Your task to perform on an android device: Go to CNN.com Image 0: 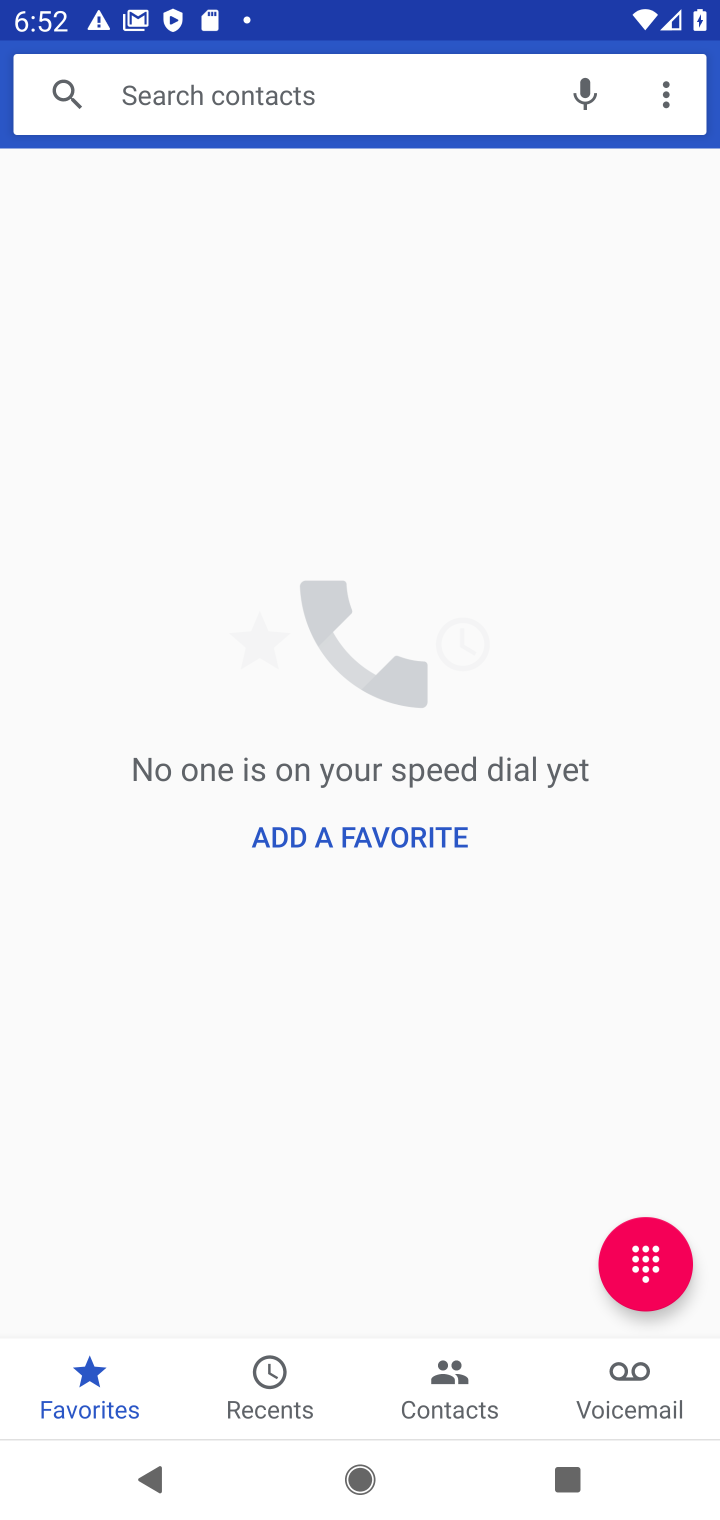
Step 0: press home button
Your task to perform on an android device: Go to CNN.com Image 1: 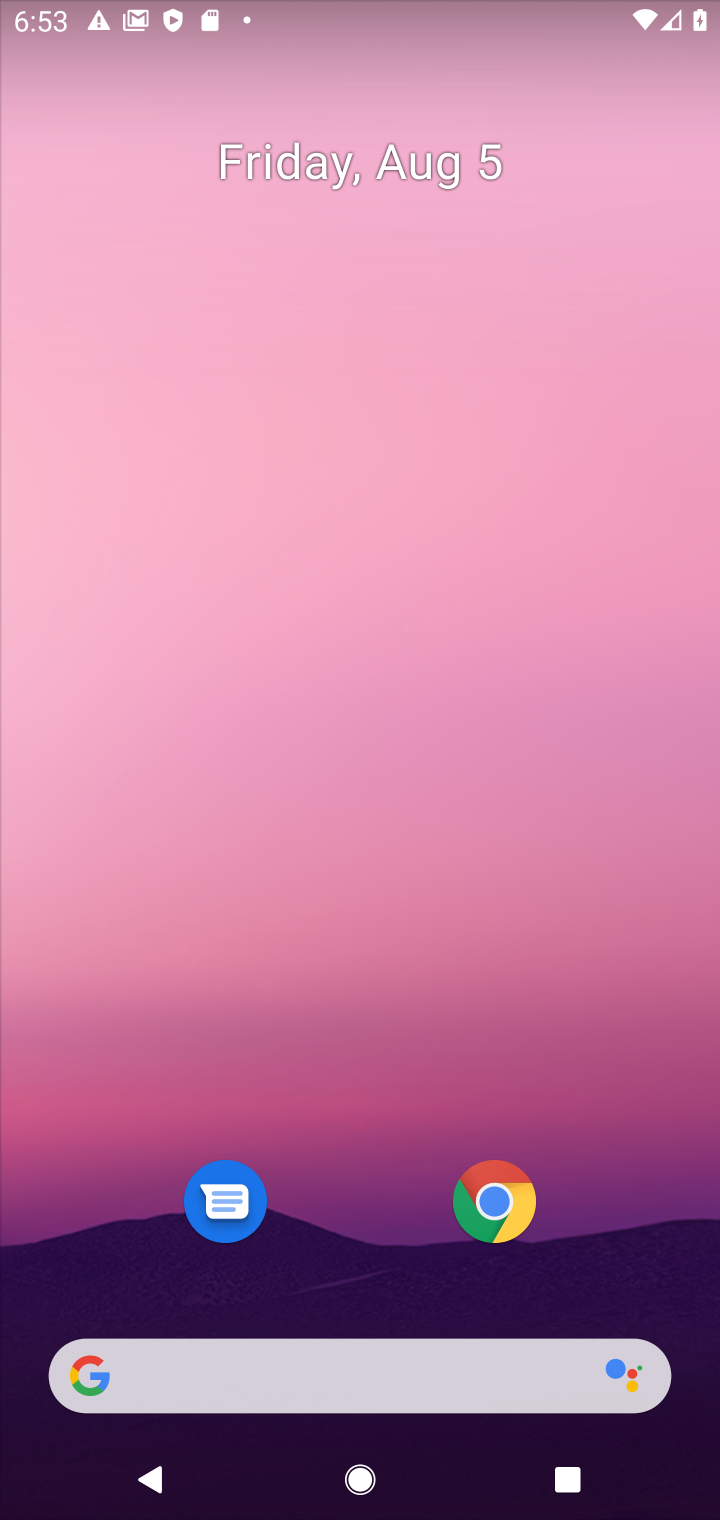
Step 1: drag from (509, 1388) to (369, 479)
Your task to perform on an android device: Go to CNN.com Image 2: 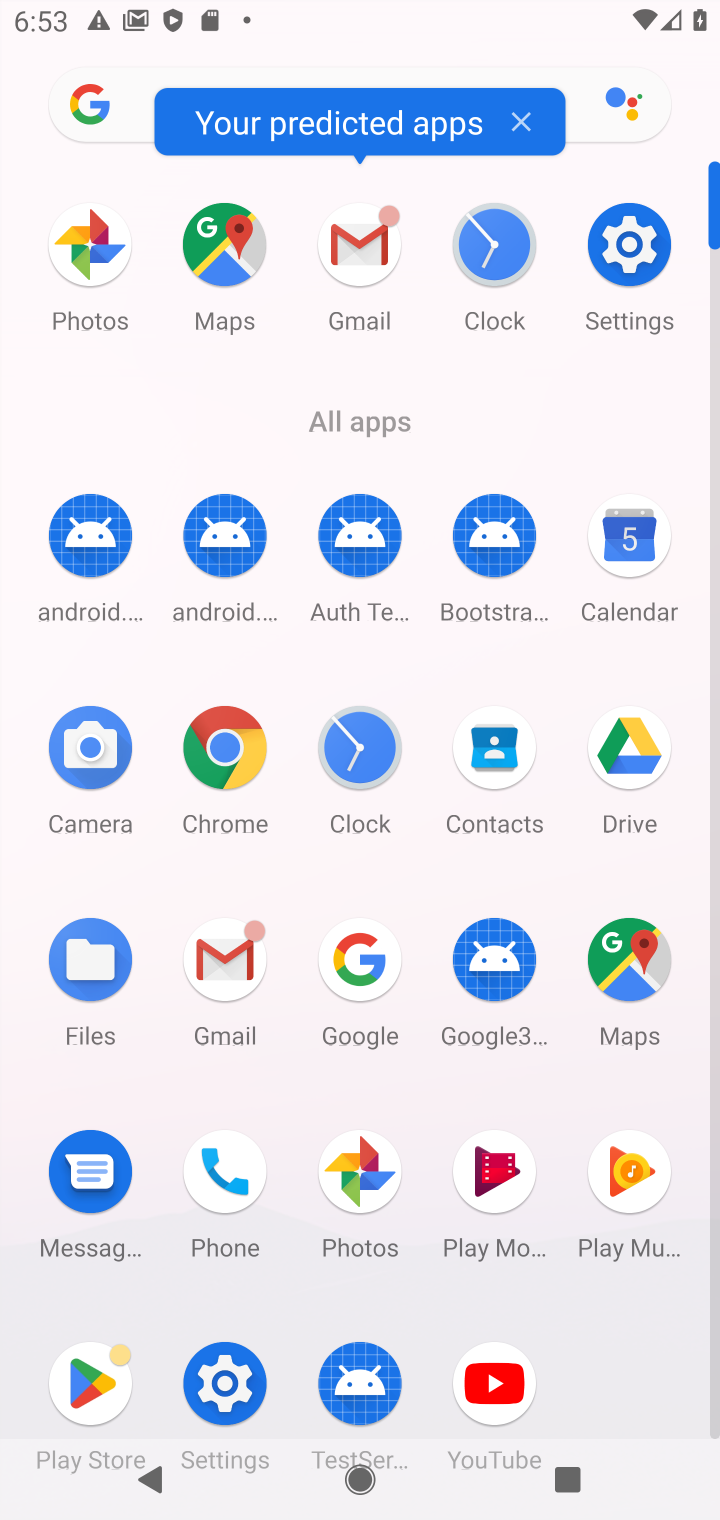
Step 2: click (233, 722)
Your task to perform on an android device: Go to CNN.com Image 3: 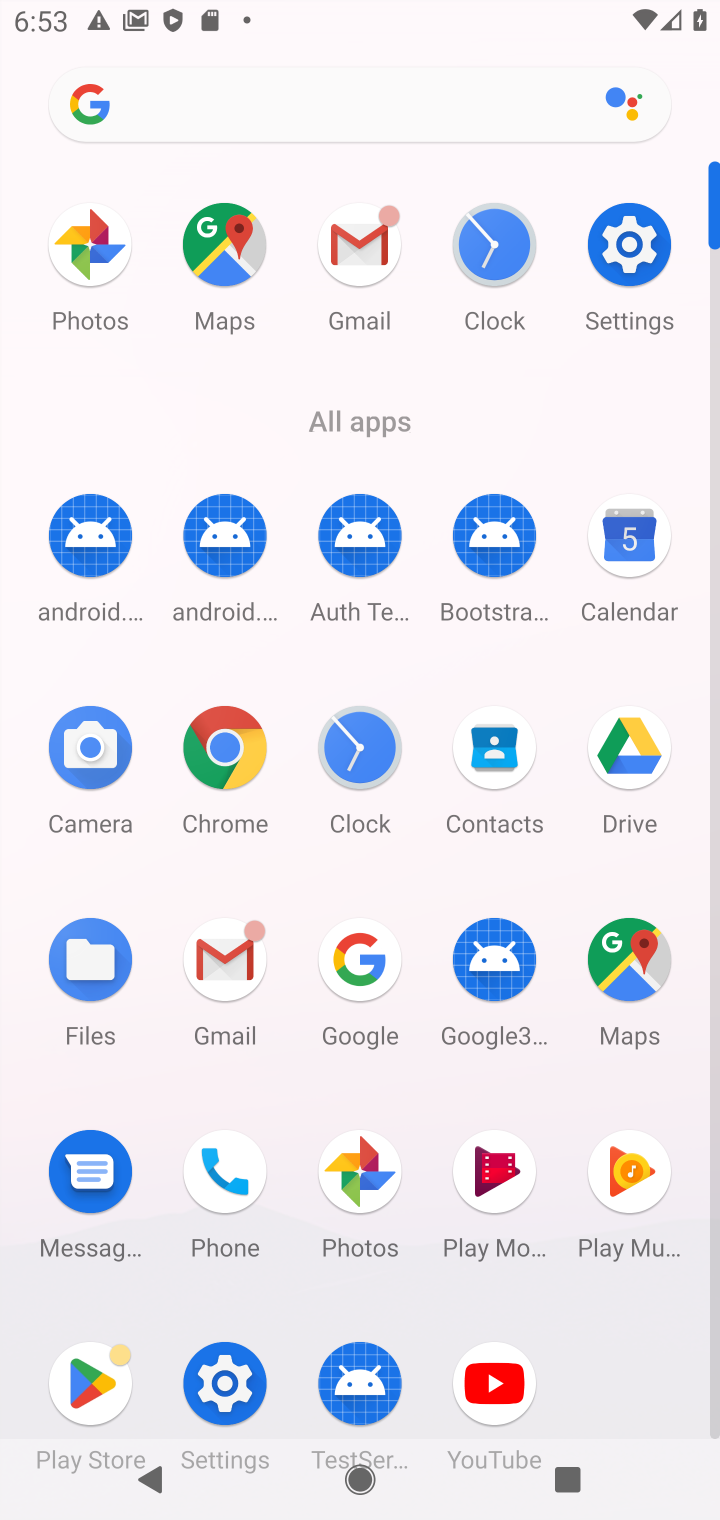
Step 3: click (230, 765)
Your task to perform on an android device: Go to CNN.com Image 4: 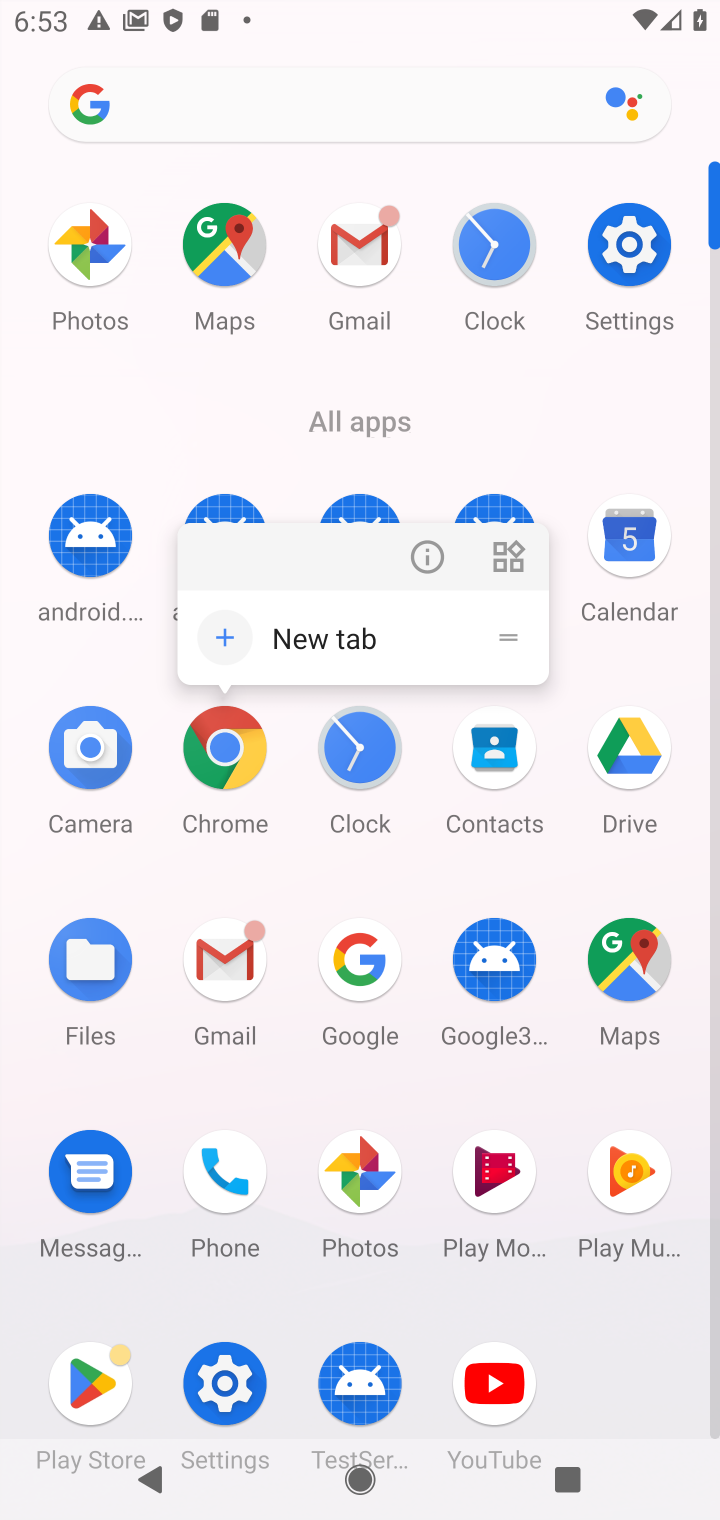
Step 4: click (236, 747)
Your task to perform on an android device: Go to CNN.com Image 5: 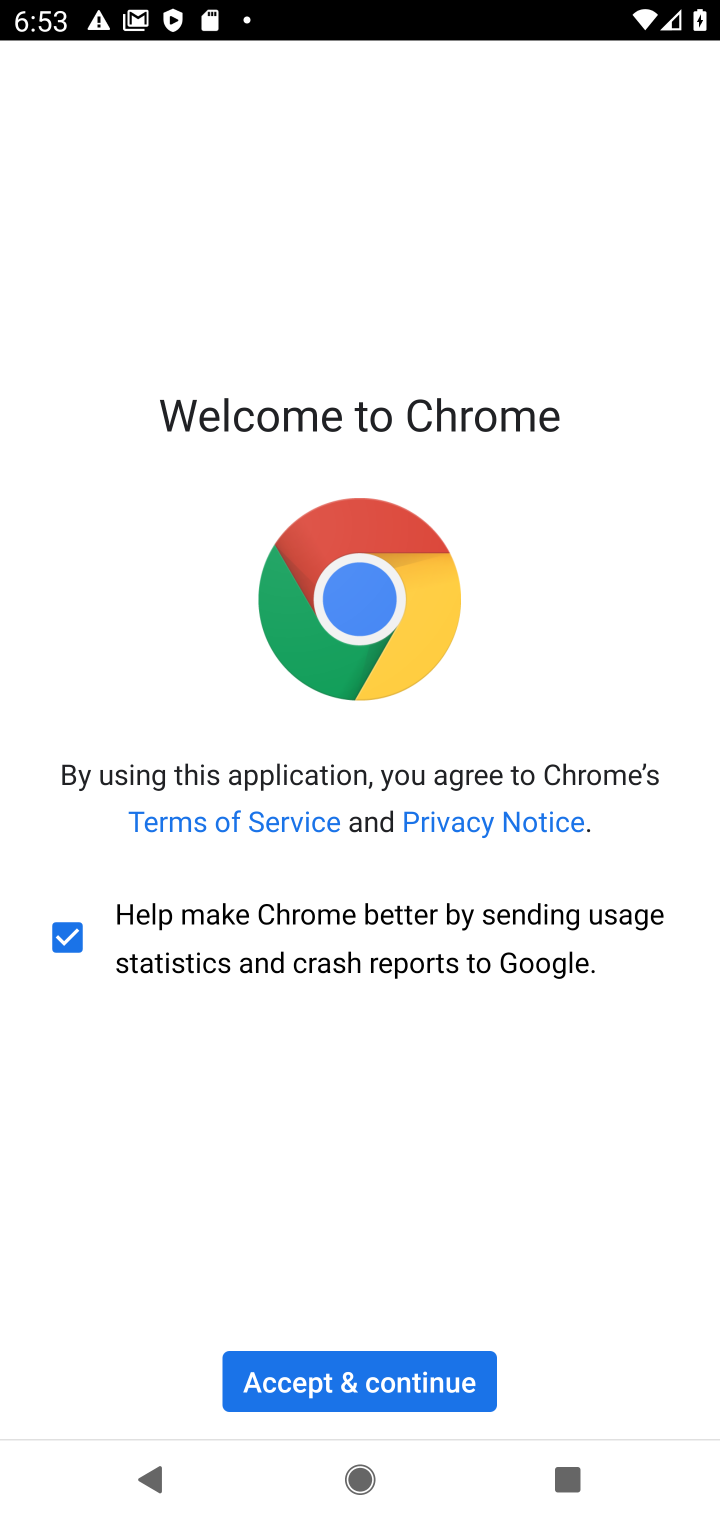
Step 5: click (340, 1378)
Your task to perform on an android device: Go to CNN.com Image 6: 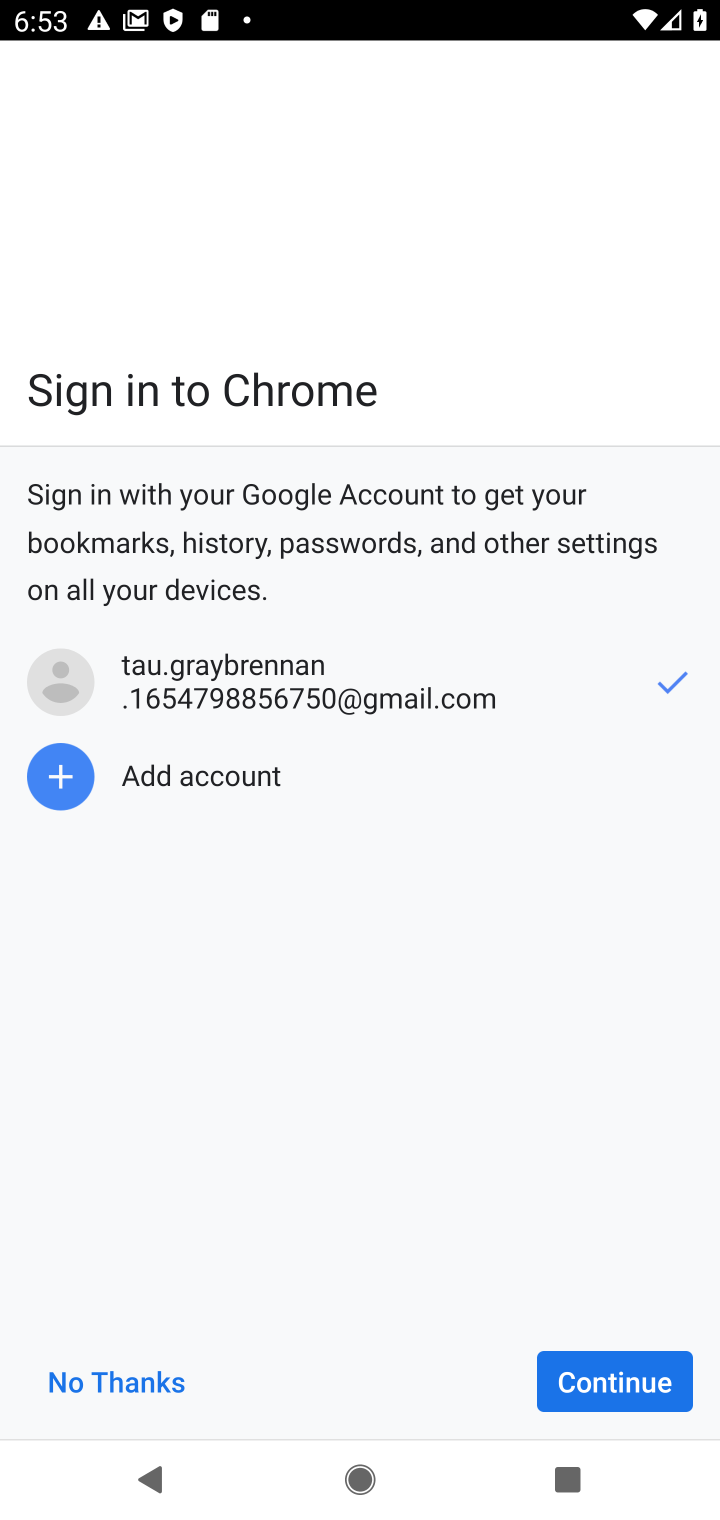
Step 6: click (600, 1371)
Your task to perform on an android device: Go to CNN.com Image 7: 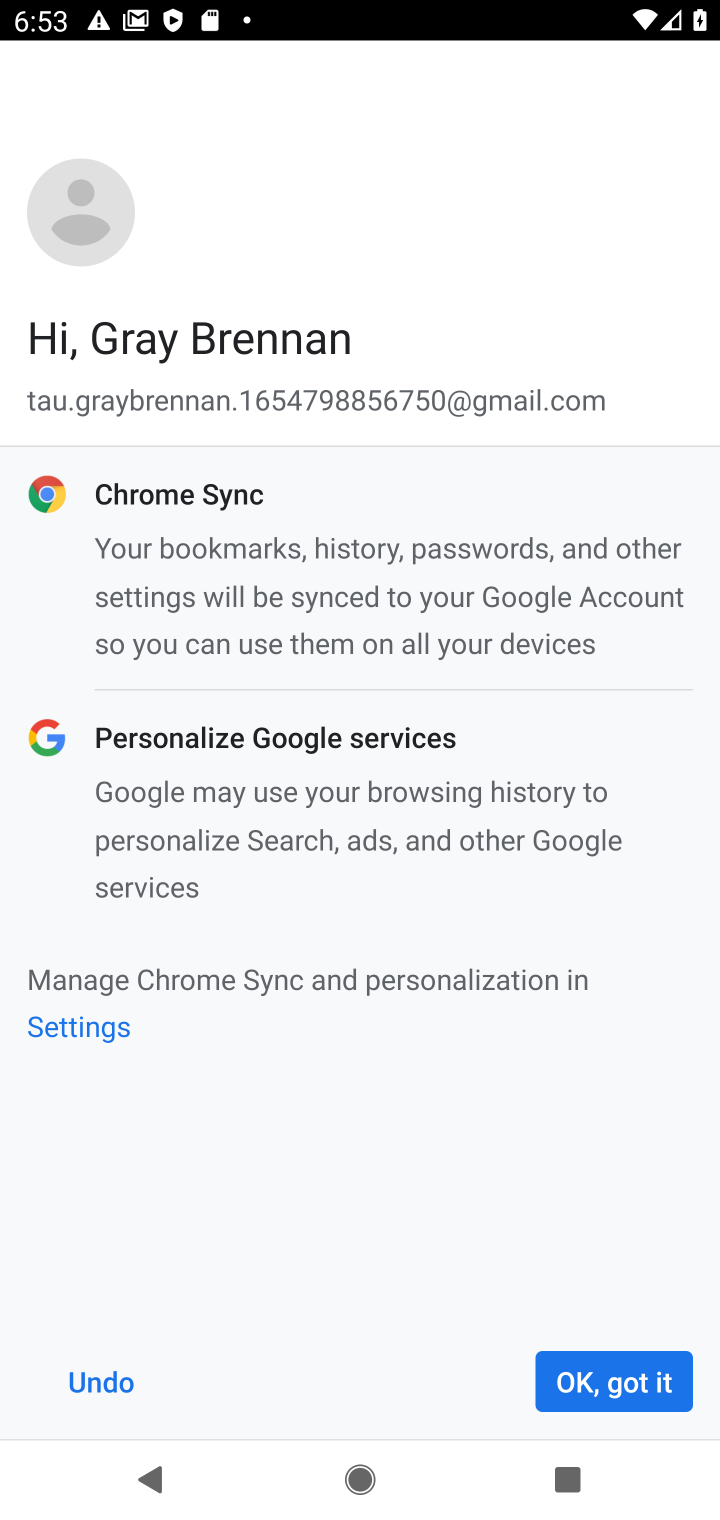
Step 7: click (600, 1371)
Your task to perform on an android device: Go to CNN.com Image 8: 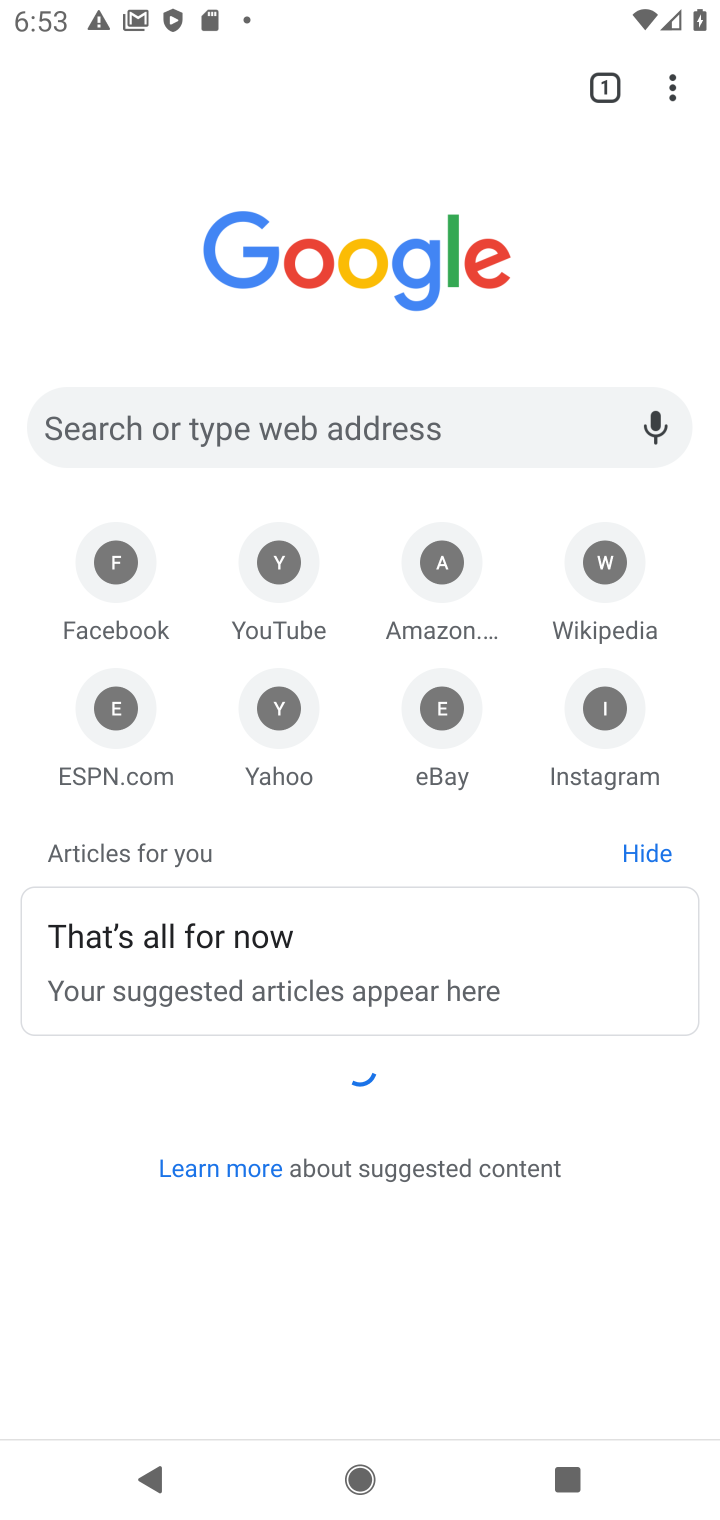
Step 8: click (248, 420)
Your task to perform on an android device: Go to CNN.com Image 9: 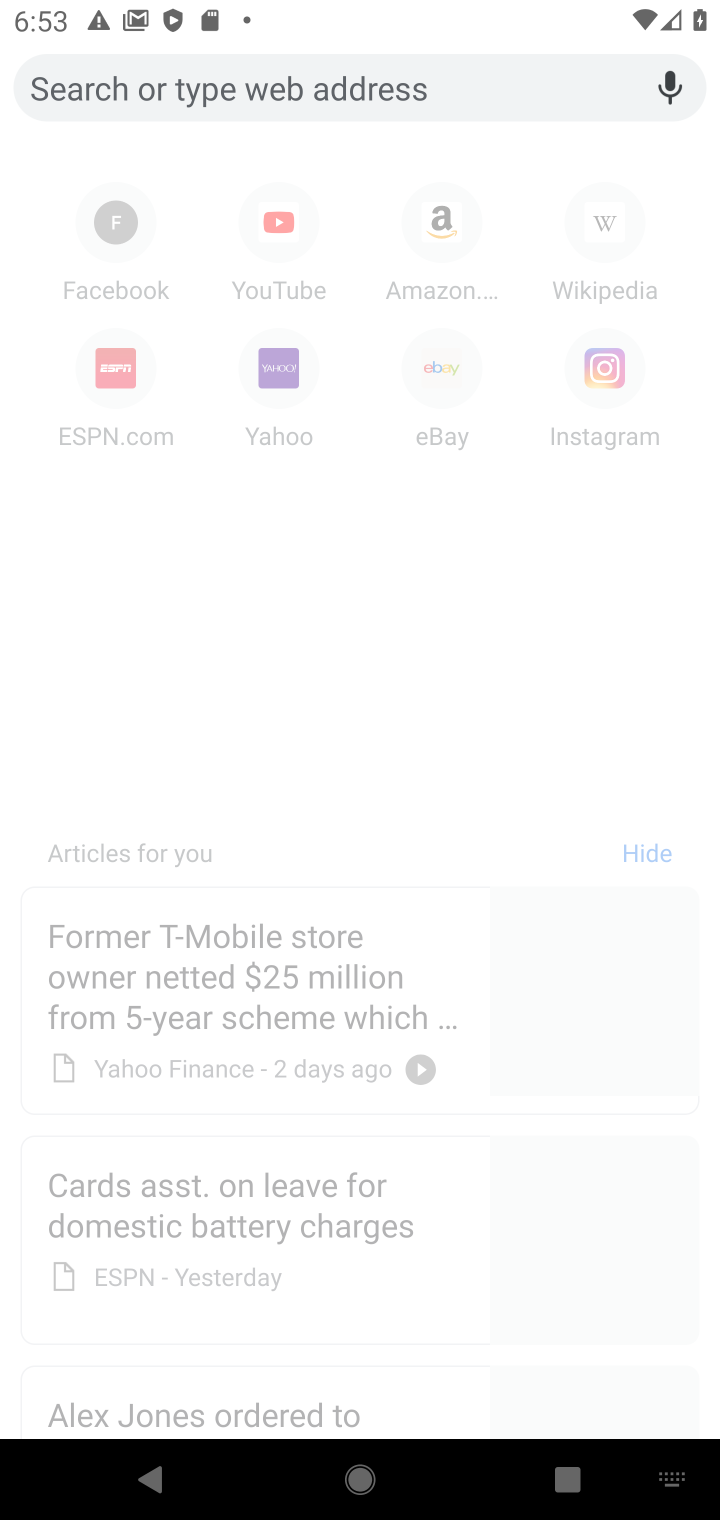
Step 9: click (663, 1505)
Your task to perform on an android device: Go to CNN.com Image 10: 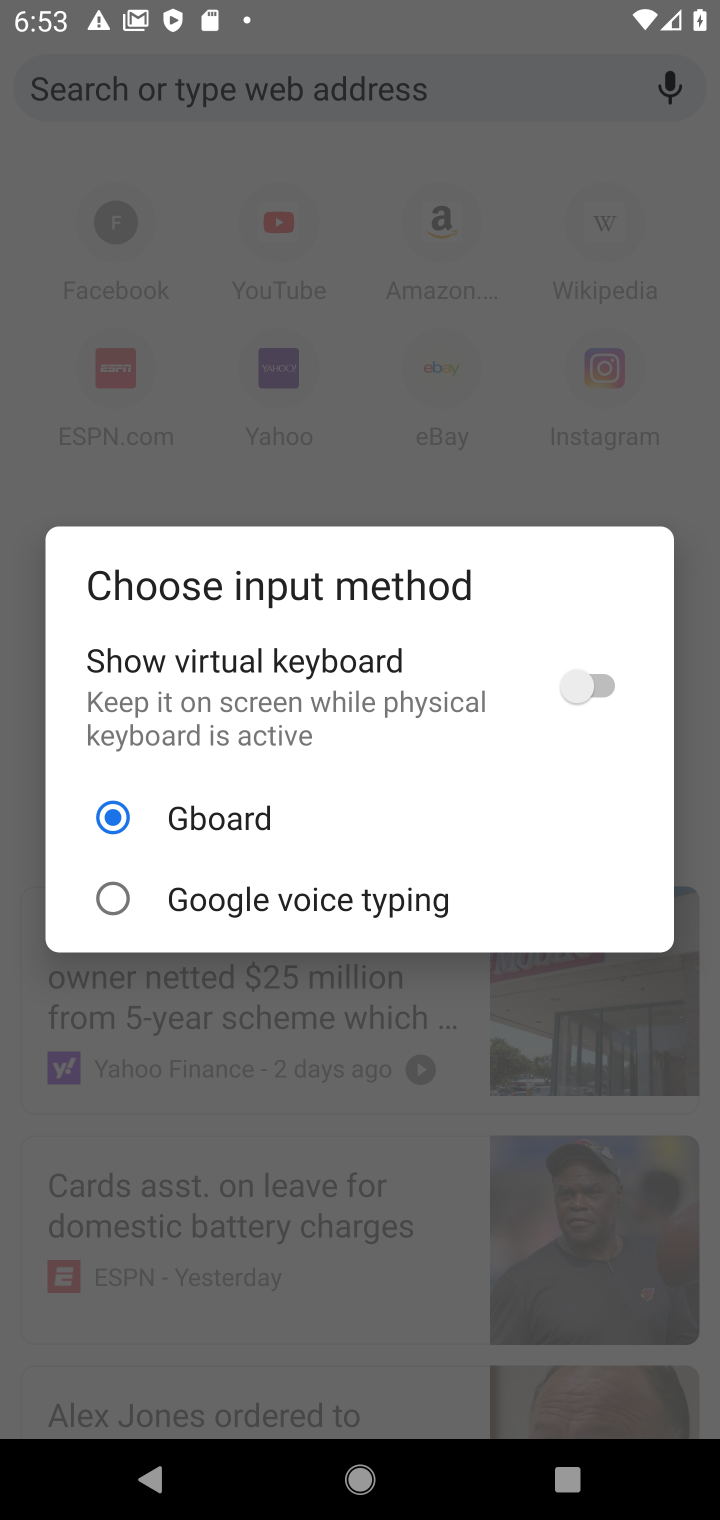
Step 10: click (592, 693)
Your task to perform on an android device: Go to CNN.com Image 11: 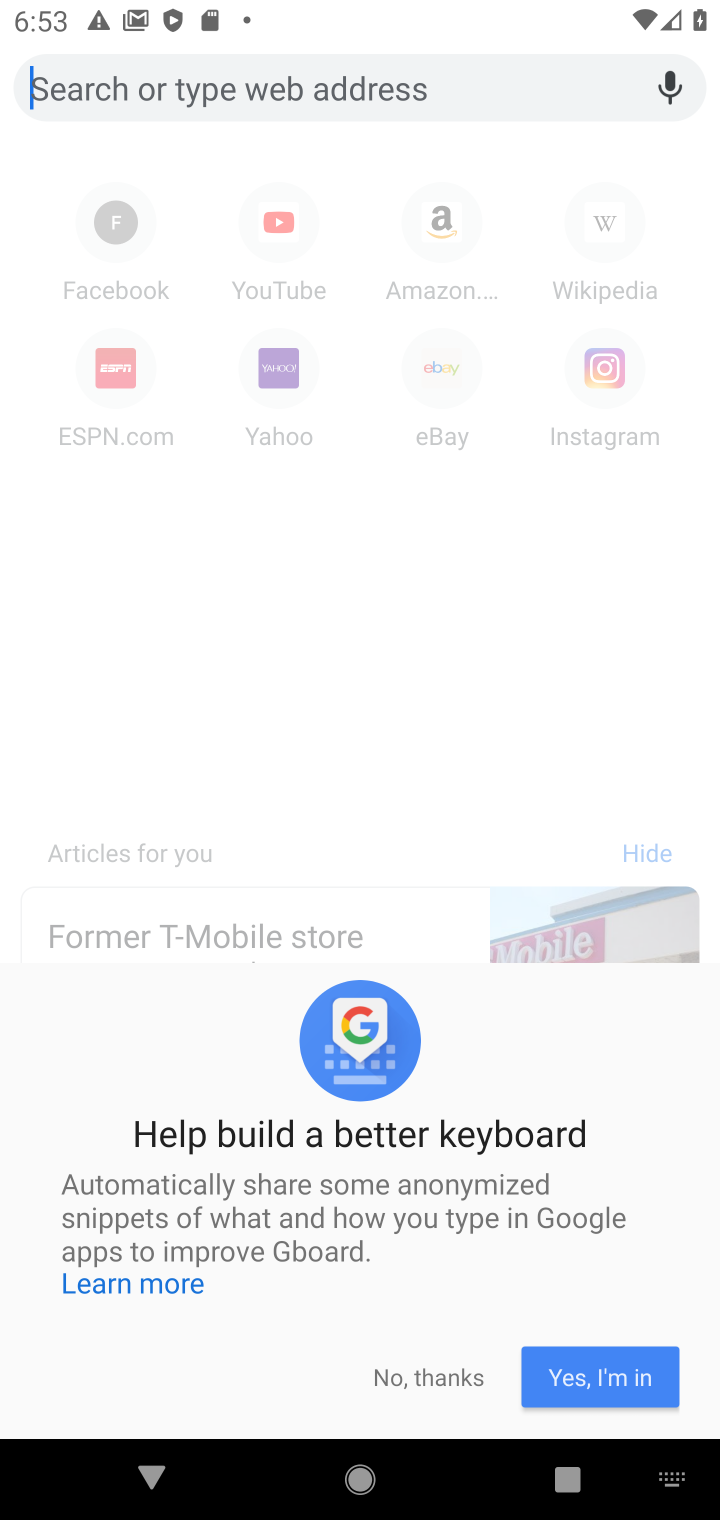
Step 11: click (417, 1375)
Your task to perform on an android device: Go to CNN.com Image 12: 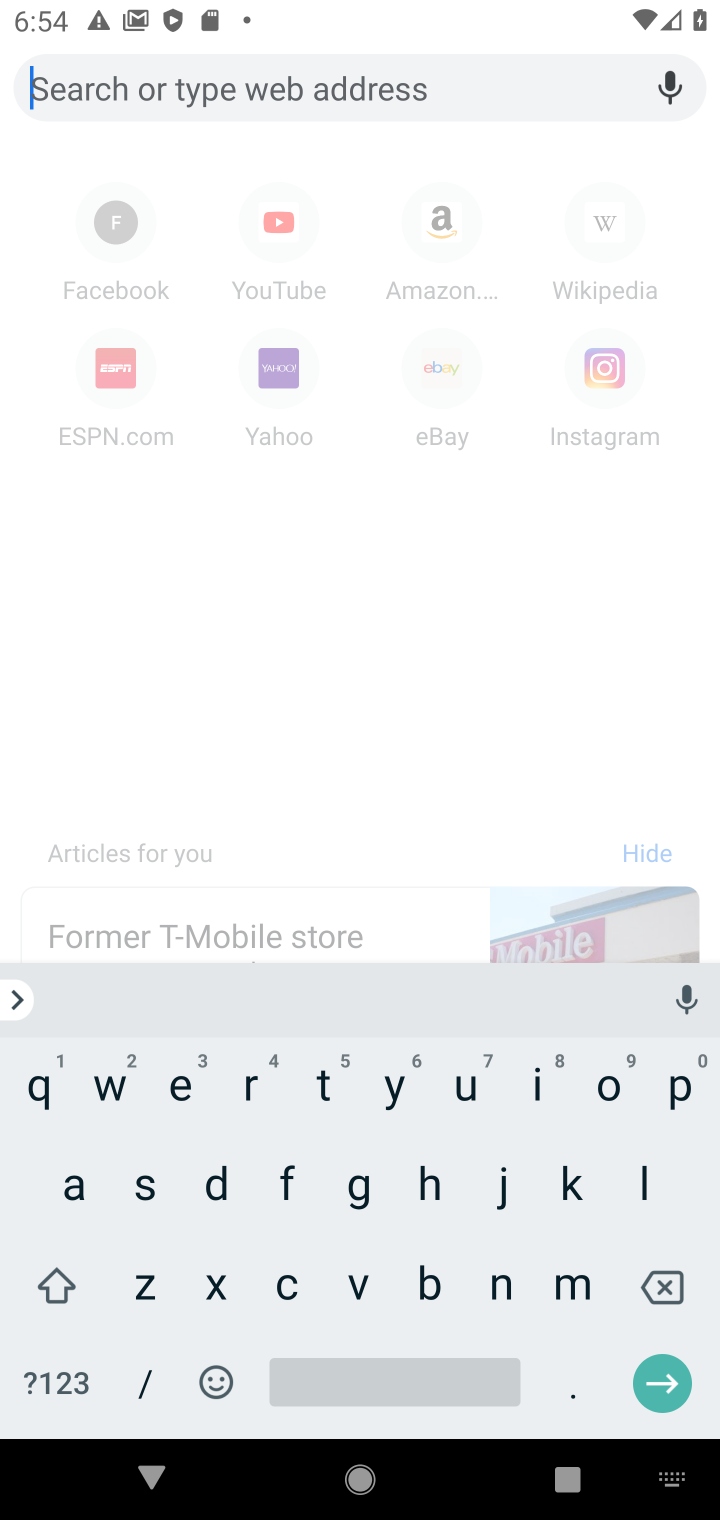
Step 12: click (280, 1293)
Your task to perform on an android device: Go to CNN.com Image 13: 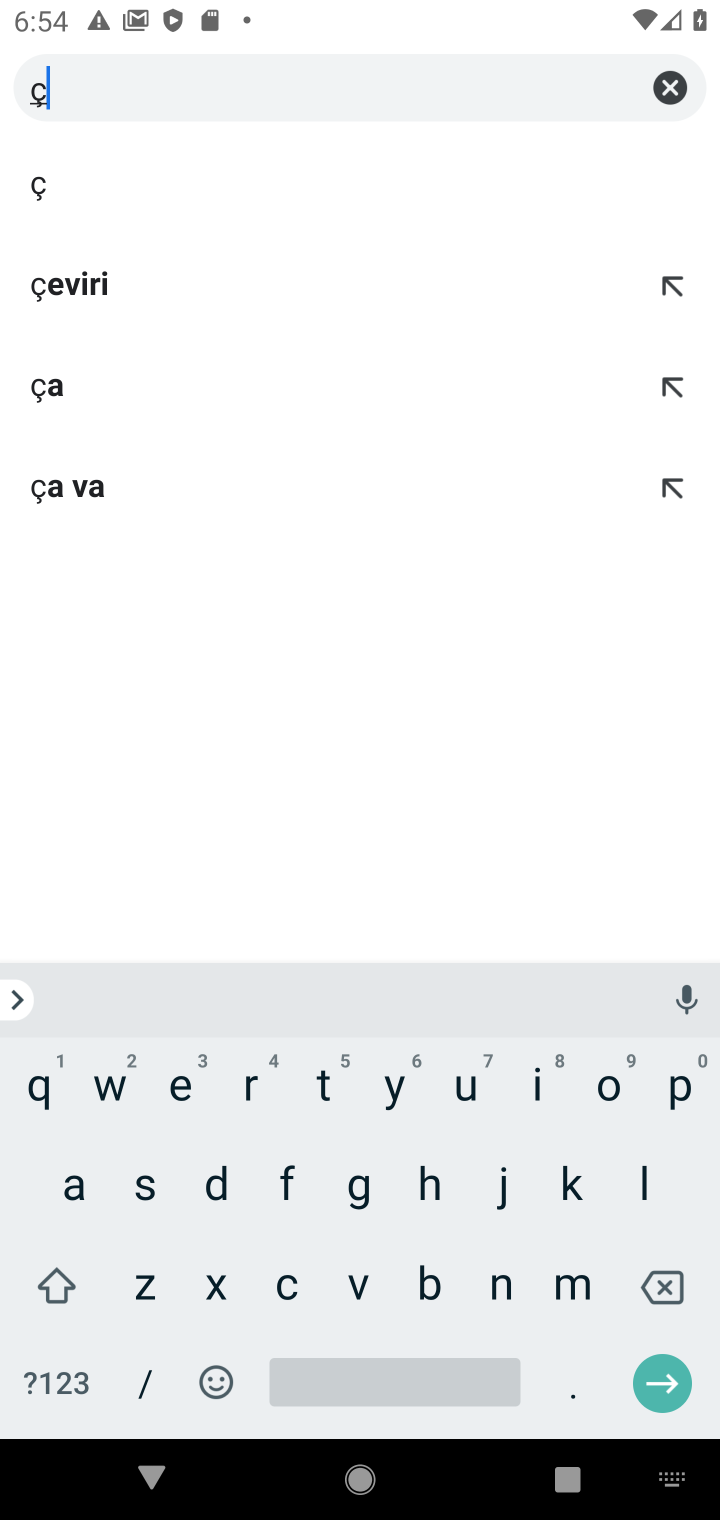
Step 13: click (679, 102)
Your task to perform on an android device: Go to CNN.com Image 14: 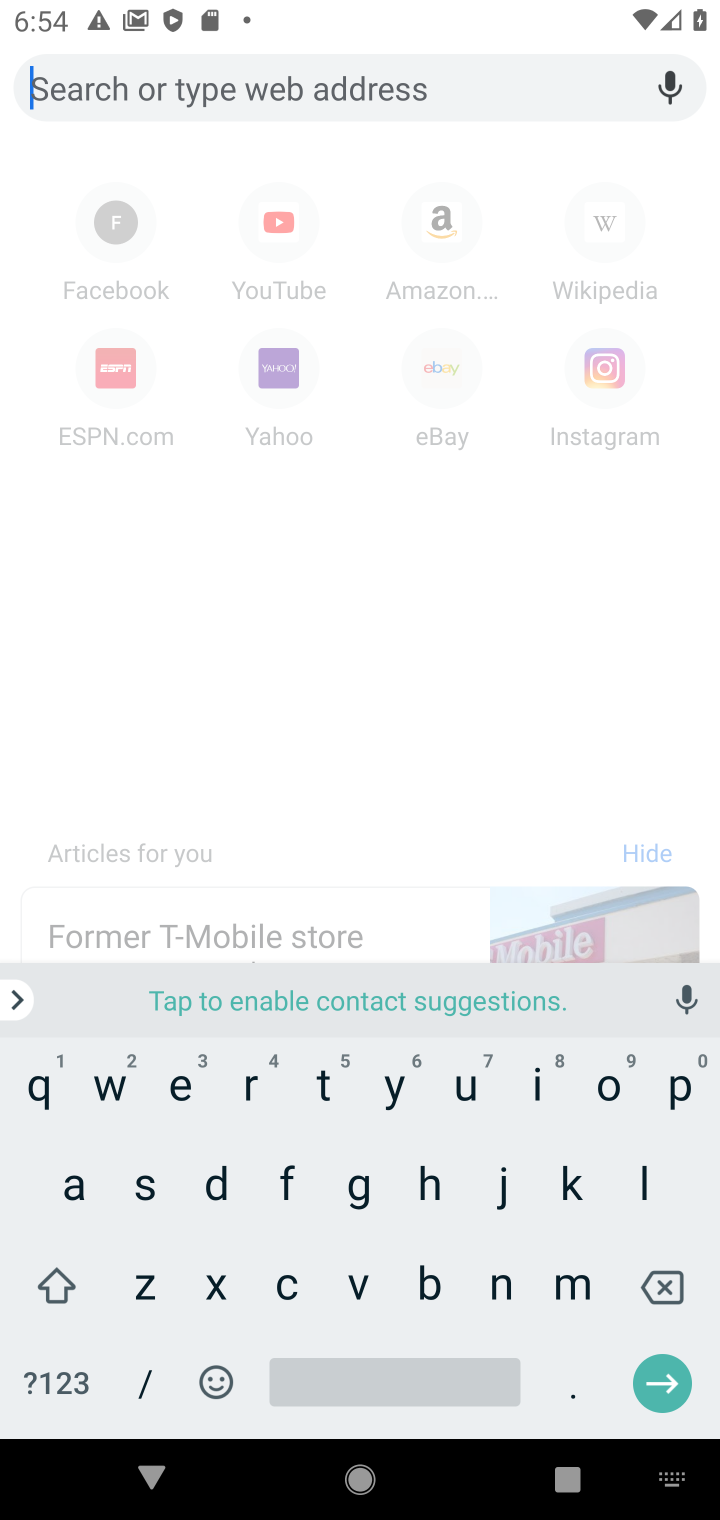
Step 14: type "cnn"
Your task to perform on an android device: Go to CNN.com Image 15: 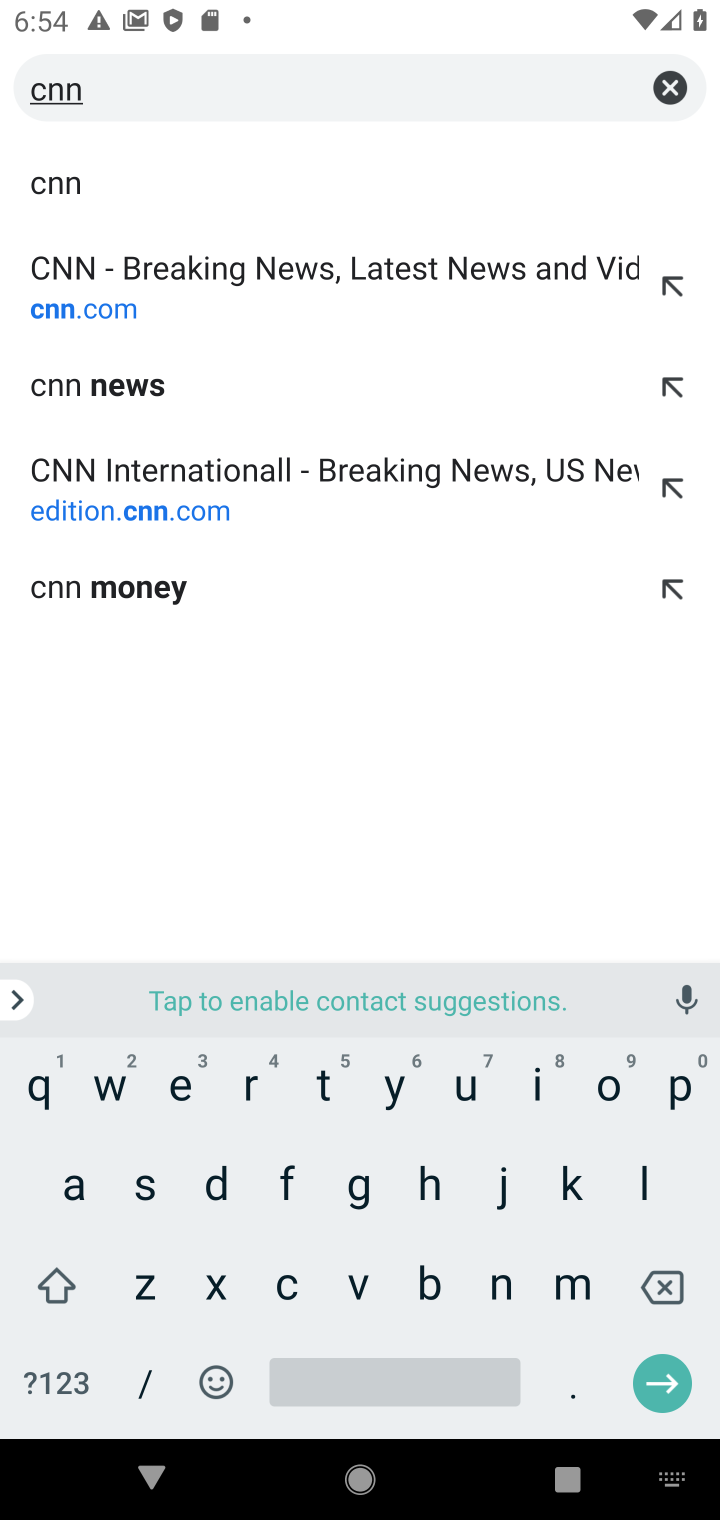
Step 15: click (183, 191)
Your task to perform on an android device: Go to CNN.com Image 16: 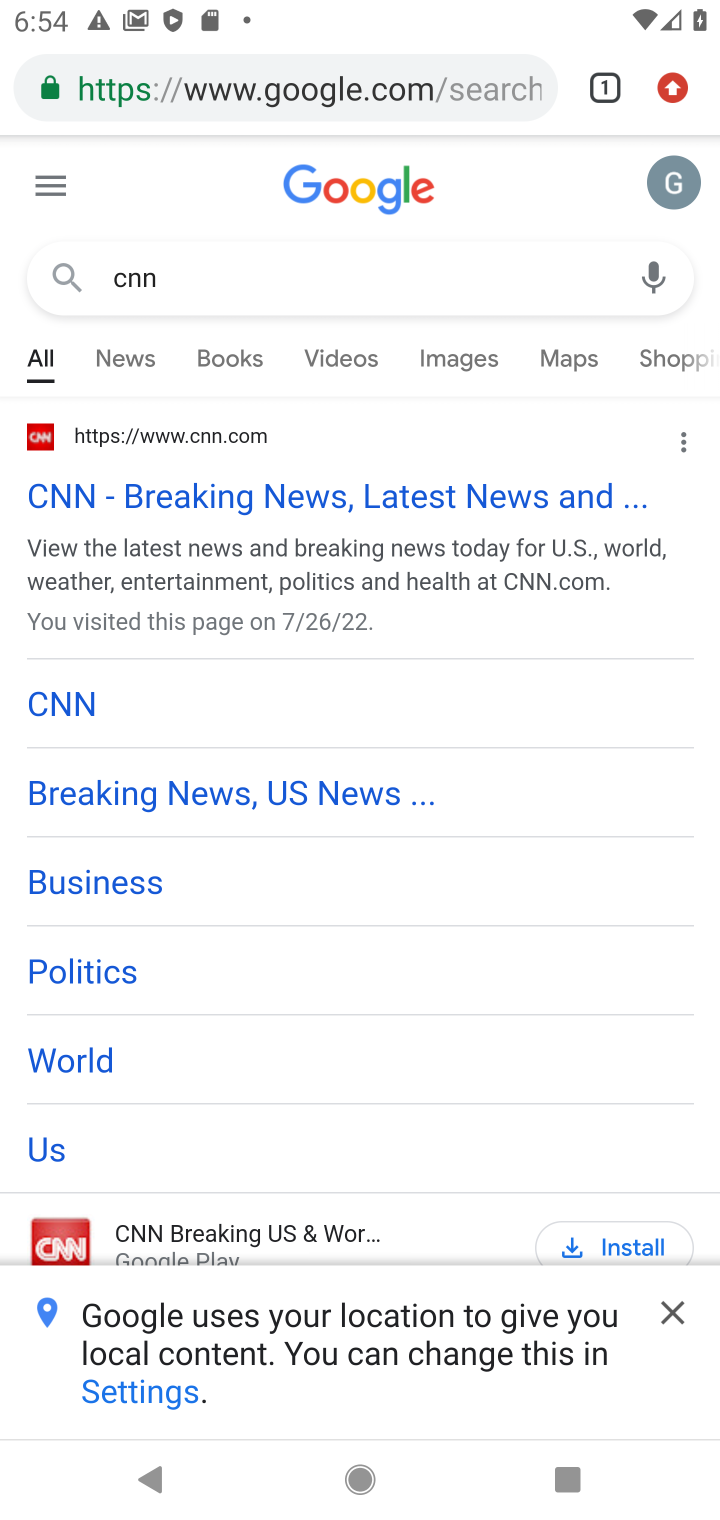
Step 16: task complete